Your task to perform on an android device: Open Google Maps Image 0: 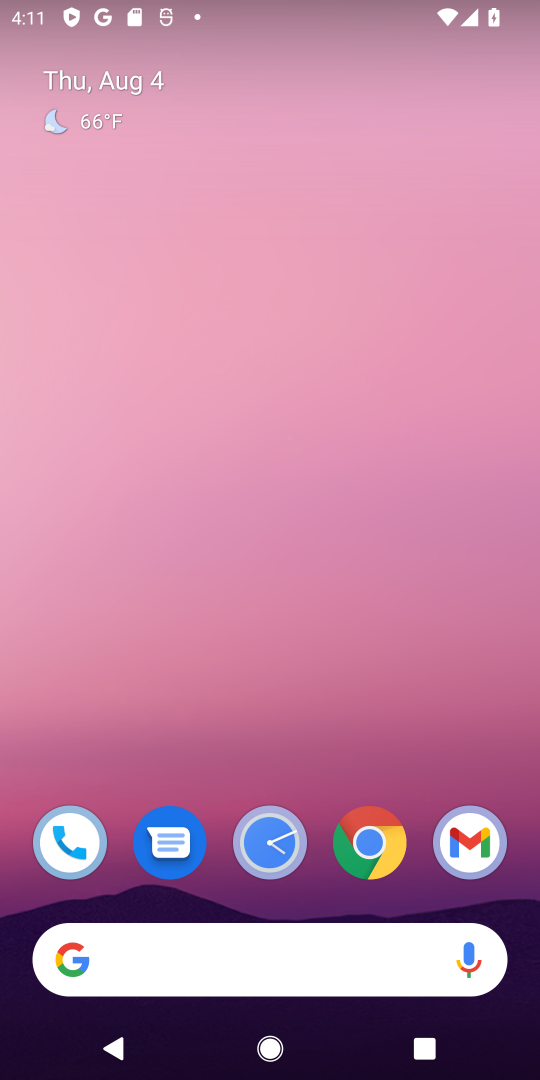
Step 0: drag from (323, 726) to (476, 4)
Your task to perform on an android device: Open Google Maps Image 1: 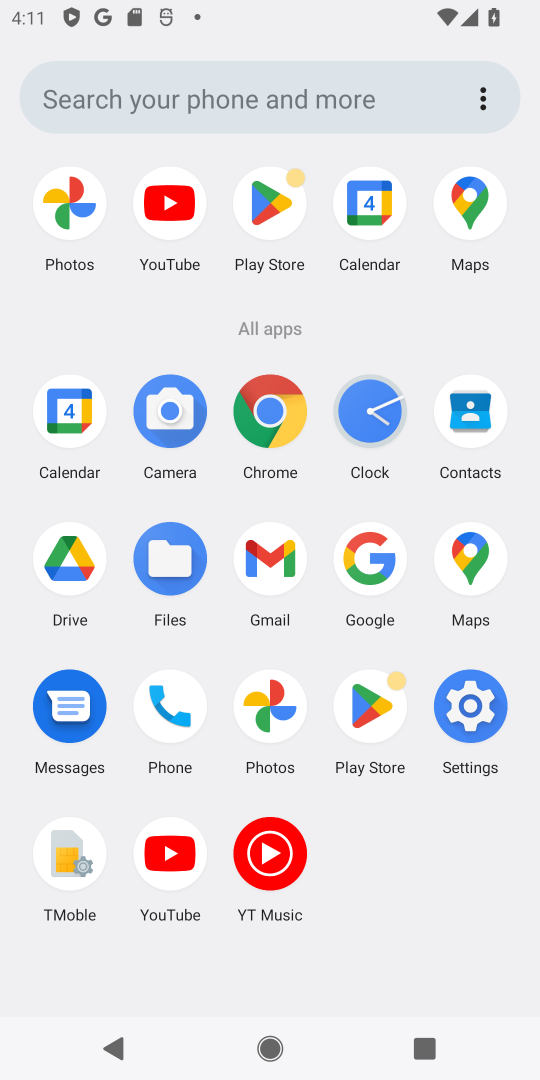
Step 1: click (475, 199)
Your task to perform on an android device: Open Google Maps Image 2: 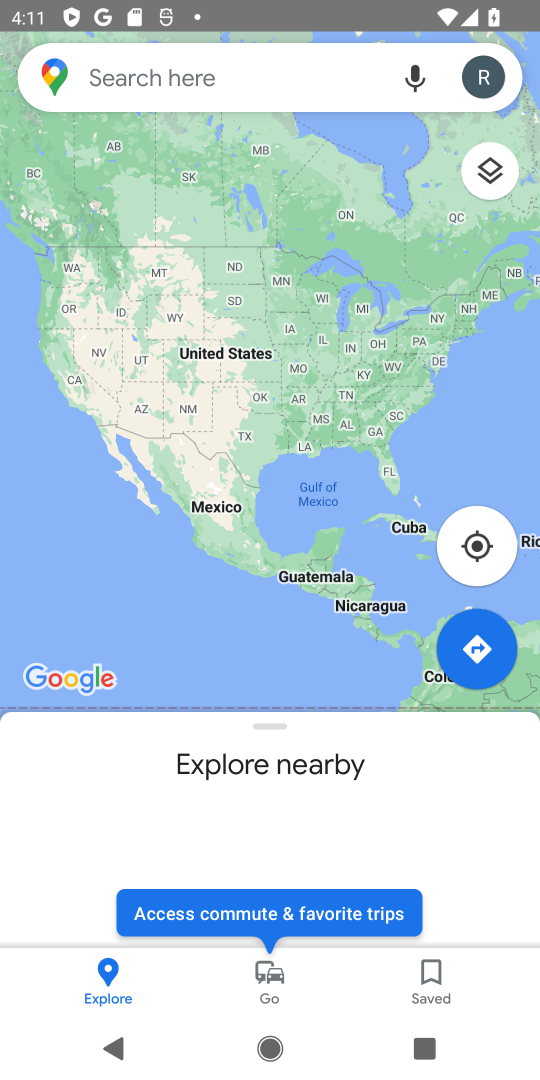
Step 2: task complete